Your task to perform on an android device: Open Google Chrome and open the bookmarks view Image 0: 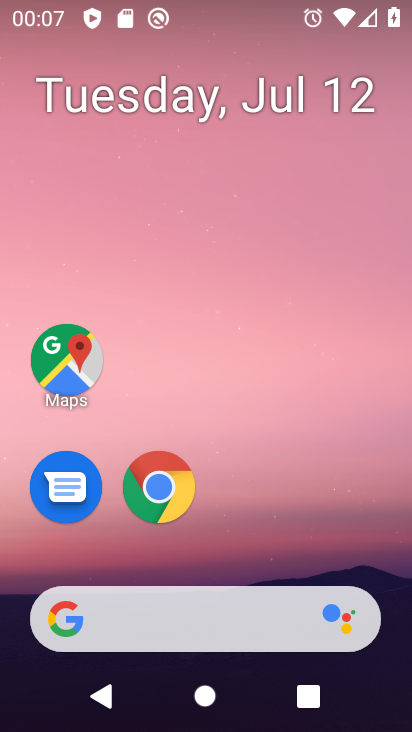
Step 0: drag from (350, 544) to (343, 92)
Your task to perform on an android device: Open Google Chrome and open the bookmarks view Image 1: 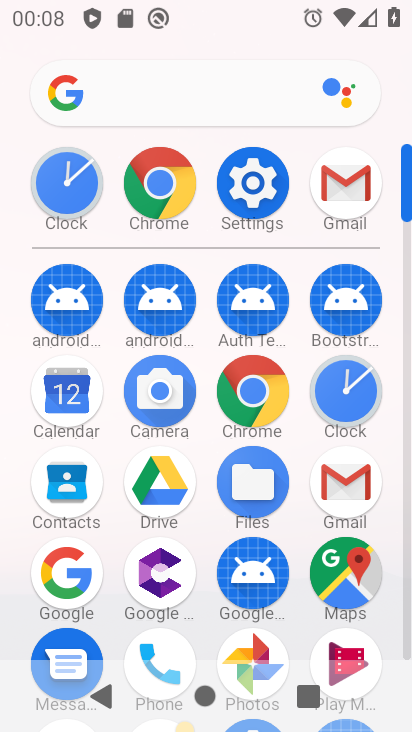
Step 1: click (252, 391)
Your task to perform on an android device: Open Google Chrome and open the bookmarks view Image 2: 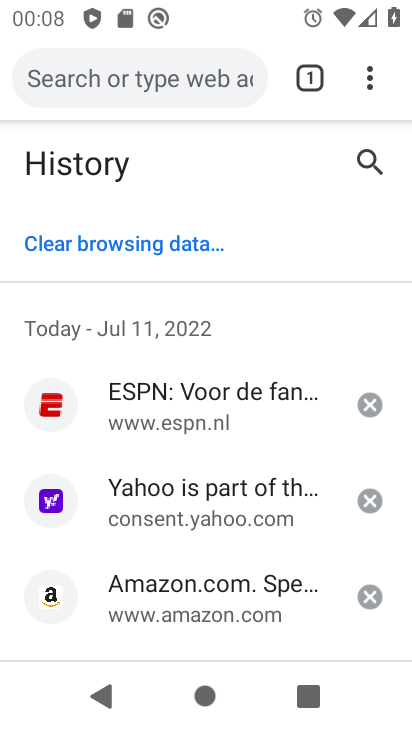
Step 2: click (368, 82)
Your task to perform on an android device: Open Google Chrome and open the bookmarks view Image 3: 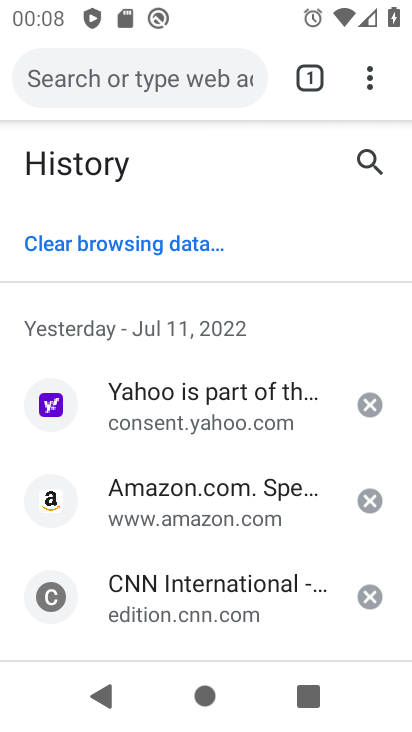
Step 3: click (370, 80)
Your task to perform on an android device: Open Google Chrome and open the bookmarks view Image 4: 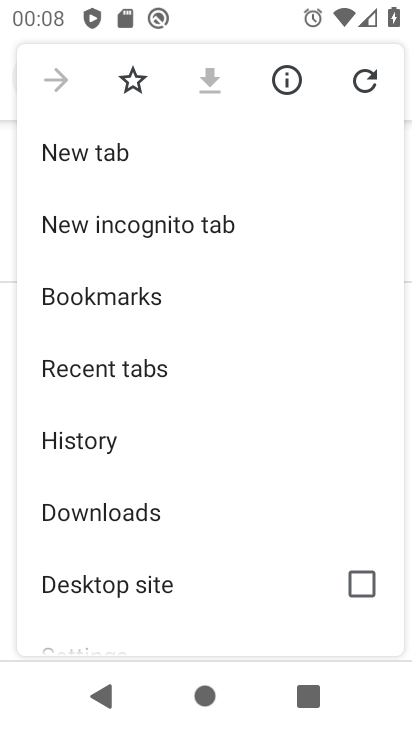
Step 4: click (130, 296)
Your task to perform on an android device: Open Google Chrome and open the bookmarks view Image 5: 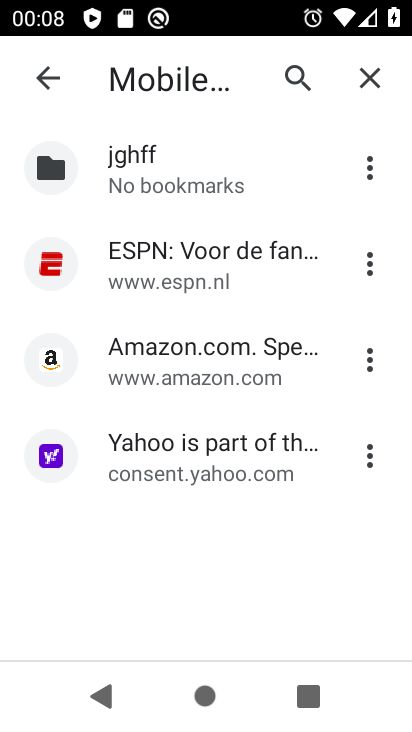
Step 5: click (185, 255)
Your task to perform on an android device: Open Google Chrome and open the bookmarks view Image 6: 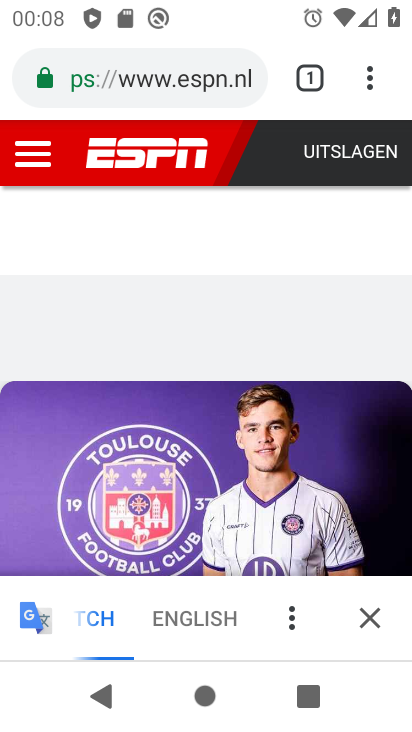
Step 6: task complete